Your task to perform on an android device: Go to accessibility settings Image 0: 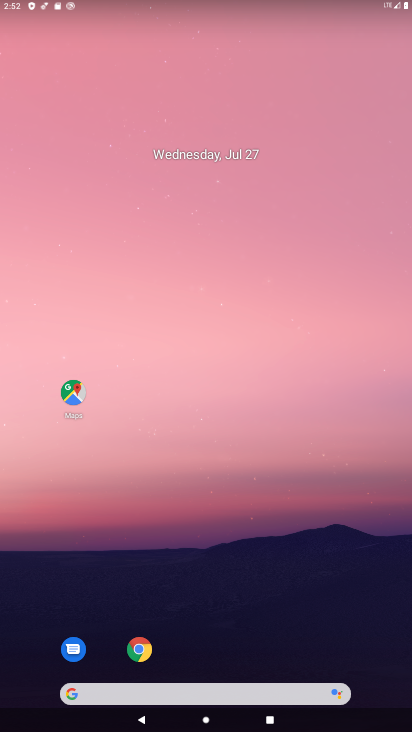
Step 0: drag from (263, 540) to (271, 133)
Your task to perform on an android device: Go to accessibility settings Image 1: 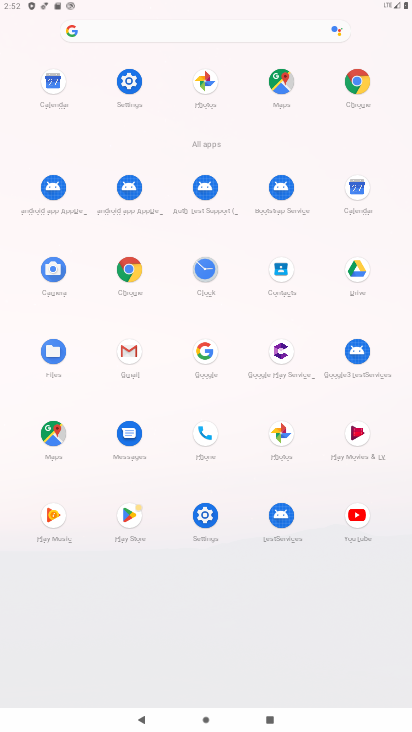
Step 1: click (210, 510)
Your task to perform on an android device: Go to accessibility settings Image 2: 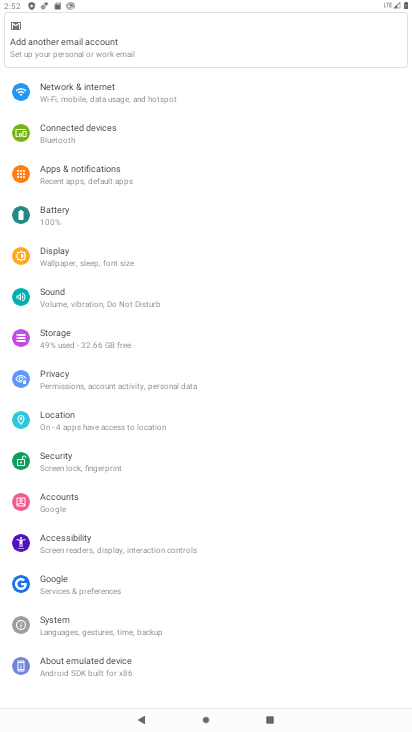
Step 2: click (61, 533)
Your task to perform on an android device: Go to accessibility settings Image 3: 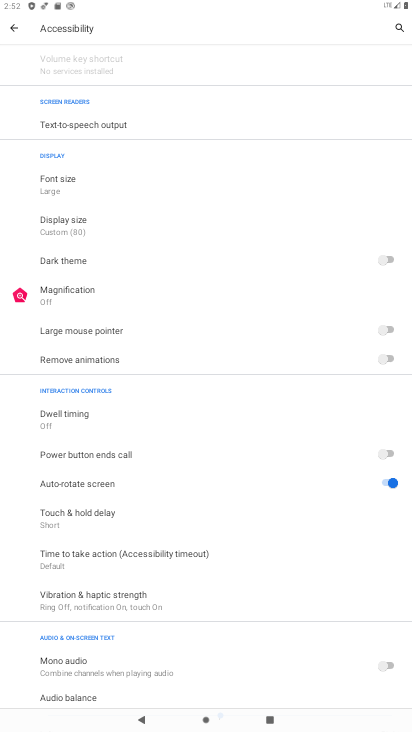
Step 3: task complete